Your task to perform on an android device: change alarm snooze length Image 0: 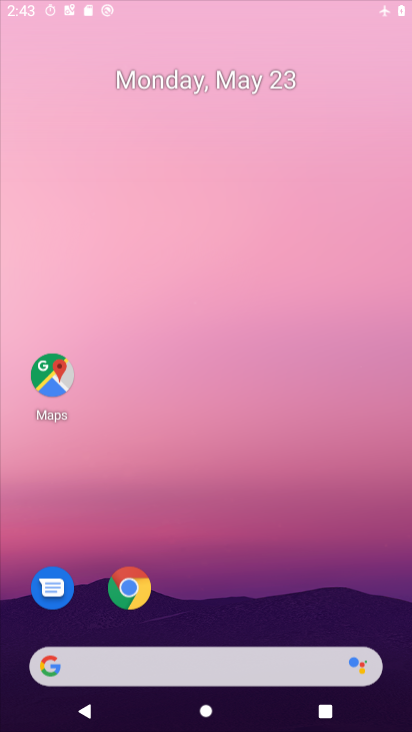
Step 0: drag from (253, 402) to (304, 229)
Your task to perform on an android device: change alarm snooze length Image 1: 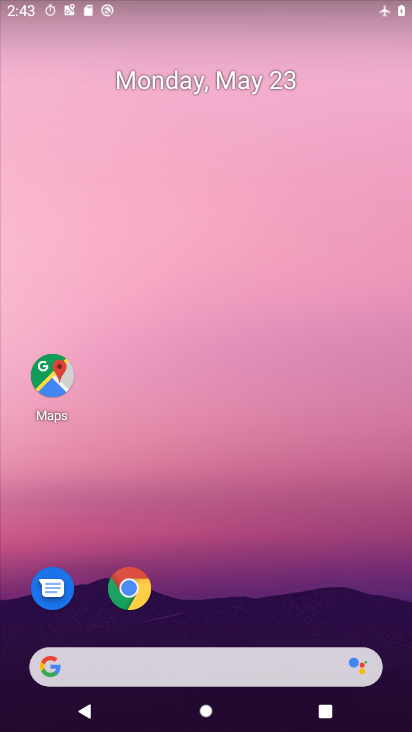
Step 1: drag from (185, 596) to (257, 41)
Your task to perform on an android device: change alarm snooze length Image 2: 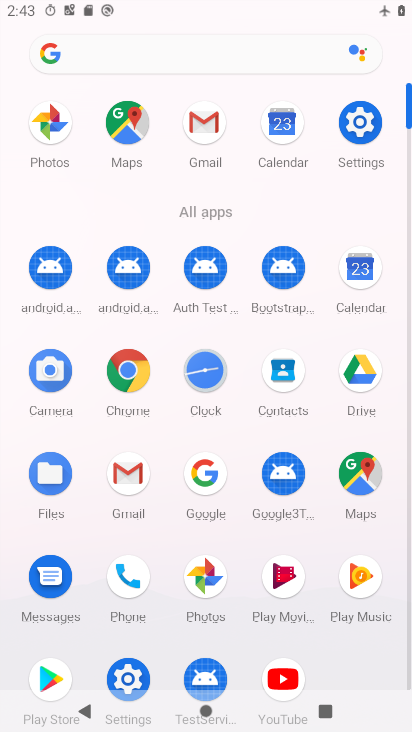
Step 2: click (193, 371)
Your task to perform on an android device: change alarm snooze length Image 3: 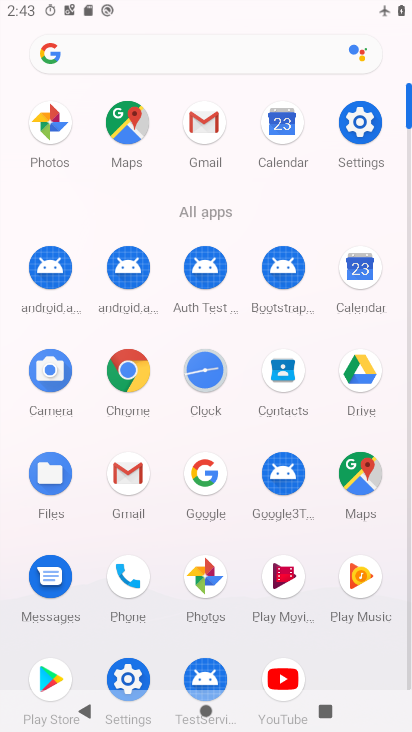
Step 3: click (193, 371)
Your task to perform on an android device: change alarm snooze length Image 4: 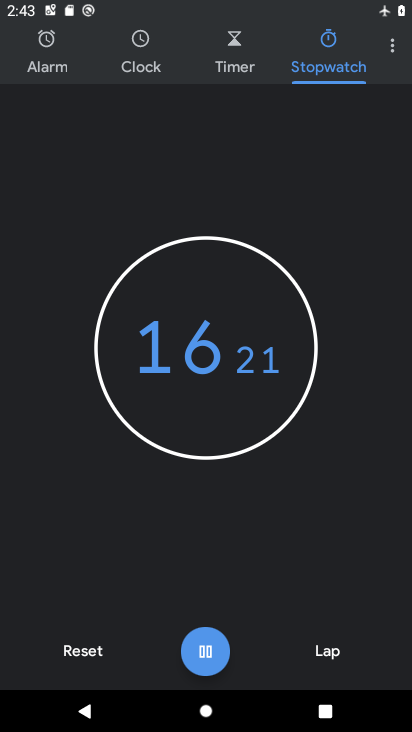
Step 4: click (85, 643)
Your task to perform on an android device: change alarm snooze length Image 5: 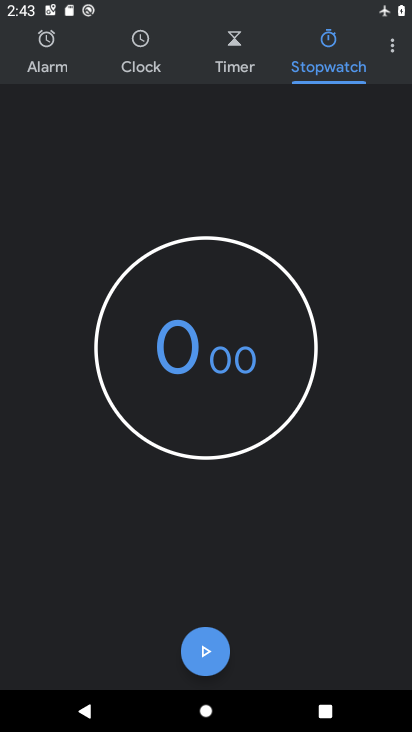
Step 5: click (399, 50)
Your task to perform on an android device: change alarm snooze length Image 6: 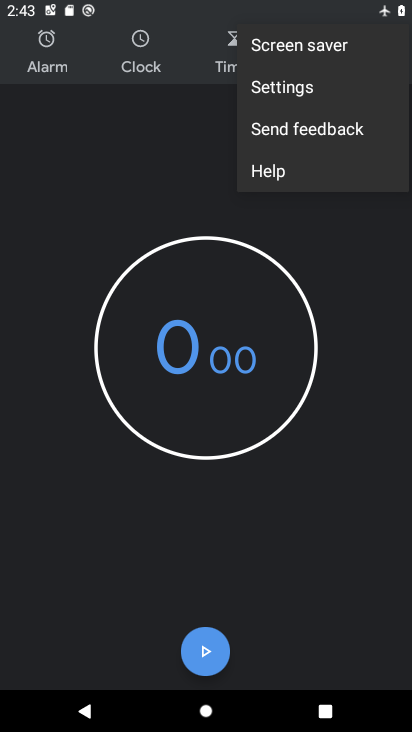
Step 6: click (333, 95)
Your task to perform on an android device: change alarm snooze length Image 7: 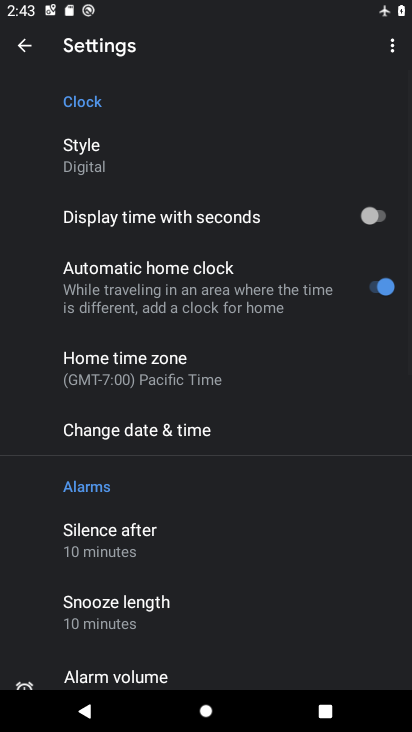
Step 7: drag from (191, 492) to (271, 10)
Your task to perform on an android device: change alarm snooze length Image 8: 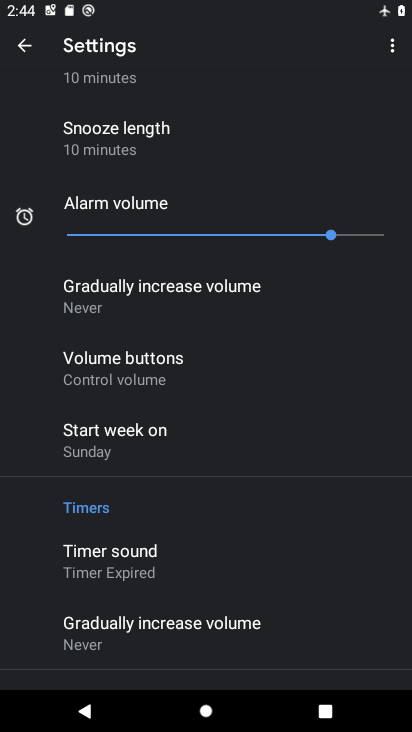
Step 8: click (150, 148)
Your task to perform on an android device: change alarm snooze length Image 9: 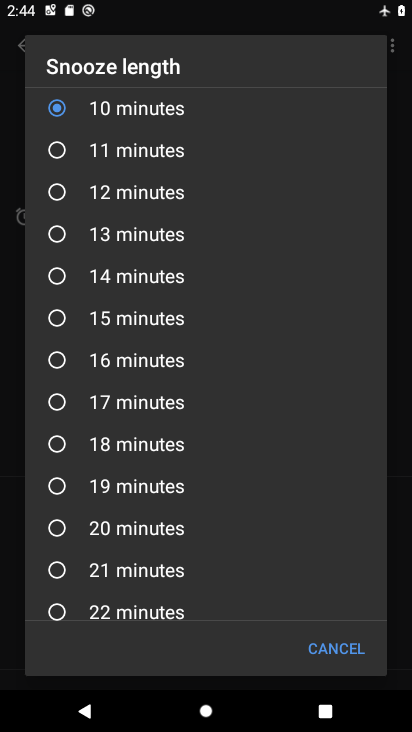
Step 9: drag from (150, 613) to (84, 88)
Your task to perform on an android device: change alarm snooze length Image 10: 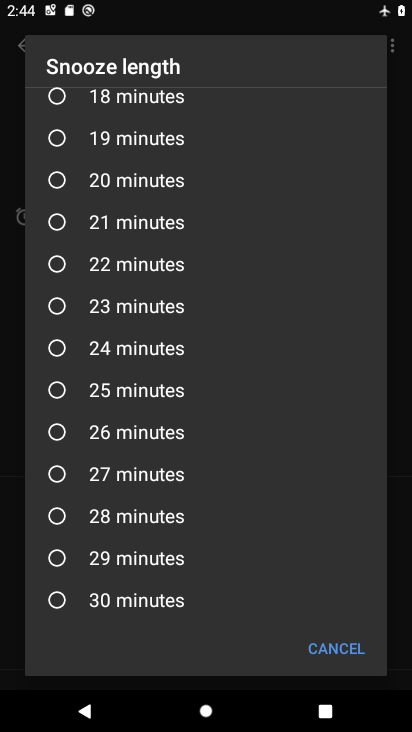
Step 10: drag from (114, 564) to (119, 257)
Your task to perform on an android device: change alarm snooze length Image 11: 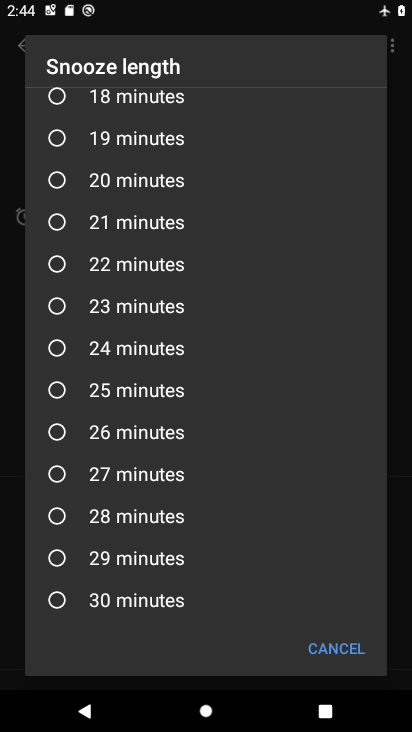
Step 11: click (52, 270)
Your task to perform on an android device: change alarm snooze length Image 12: 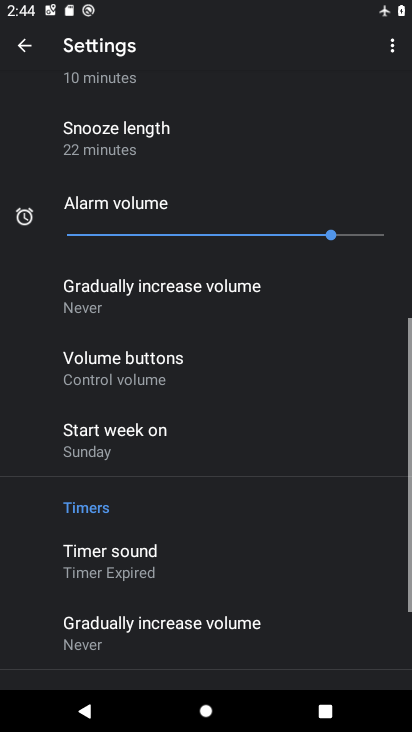
Step 12: task complete